Your task to perform on an android device: see sites visited before in the chrome app Image 0: 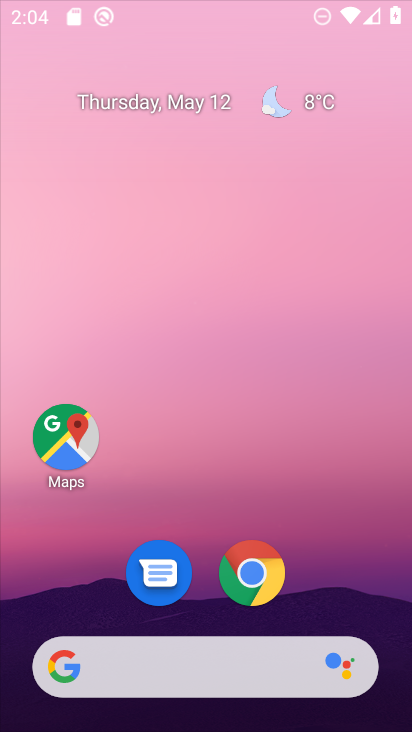
Step 0: drag from (338, 604) to (171, 104)
Your task to perform on an android device: see sites visited before in the chrome app Image 1: 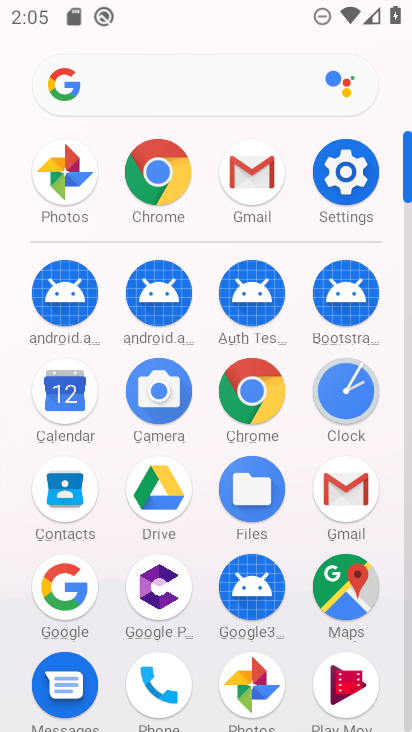
Step 1: click (175, 173)
Your task to perform on an android device: see sites visited before in the chrome app Image 2: 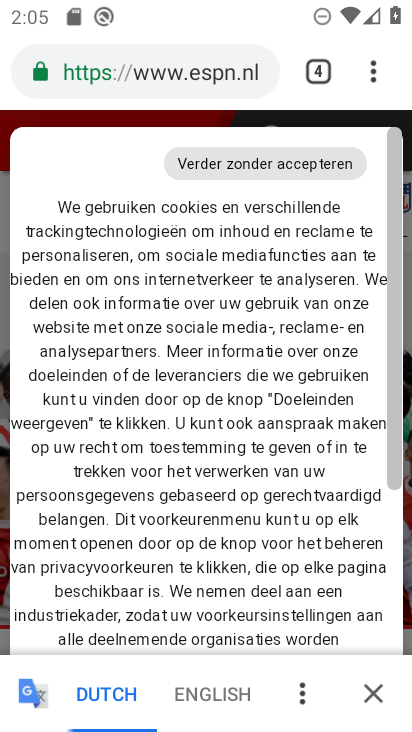
Step 2: click (370, 62)
Your task to perform on an android device: see sites visited before in the chrome app Image 3: 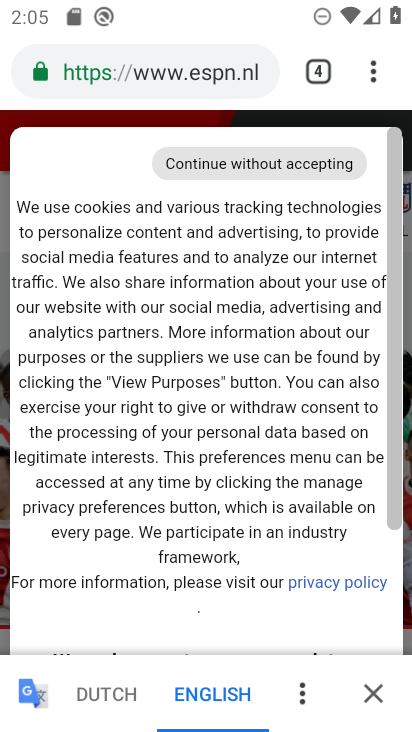
Step 3: press back button
Your task to perform on an android device: see sites visited before in the chrome app Image 4: 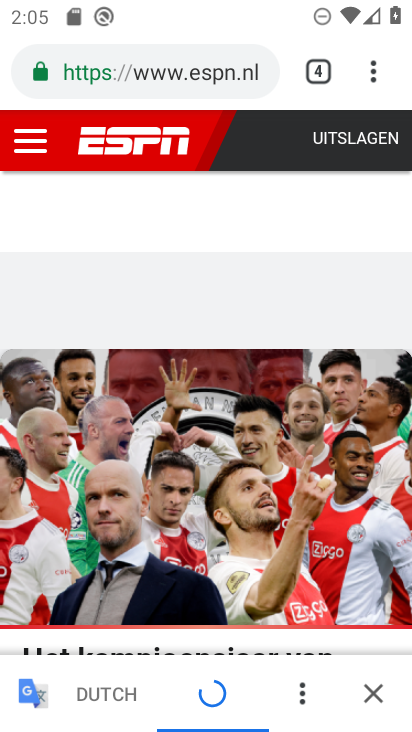
Step 4: press home button
Your task to perform on an android device: see sites visited before in the chrome app Image 5: 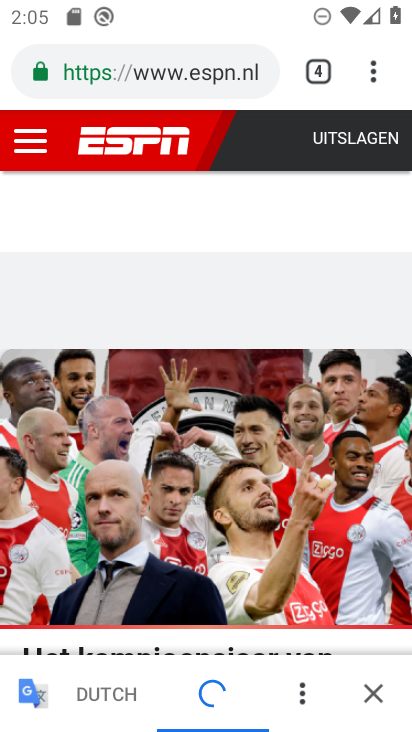
Step 5: press home button
Your task to perform on an android device: see sites visited before in the chrome app Image 6: 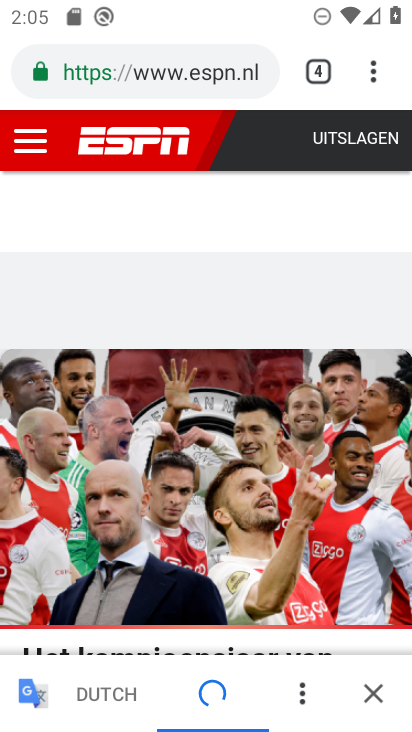
Step 6: drag from (222, 176) to (197, 32)
Your task to perform on an android device: see sites visited before in the chrome app Image 7: 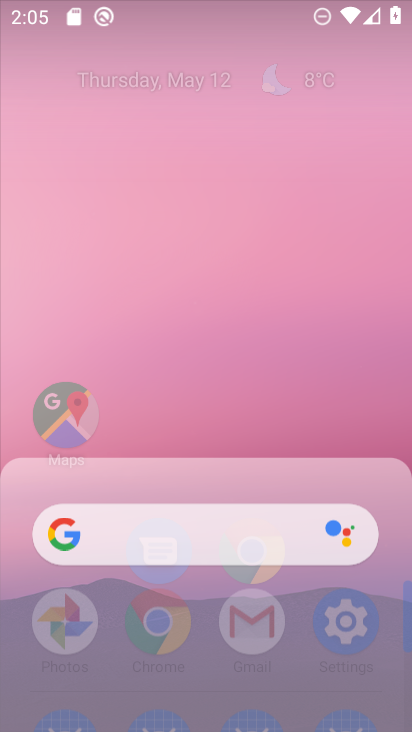
Step 7: drag from (216, 460) to (147, 113)
Your task to perform on an android device: see sites visited before in the chrome app Image 8: 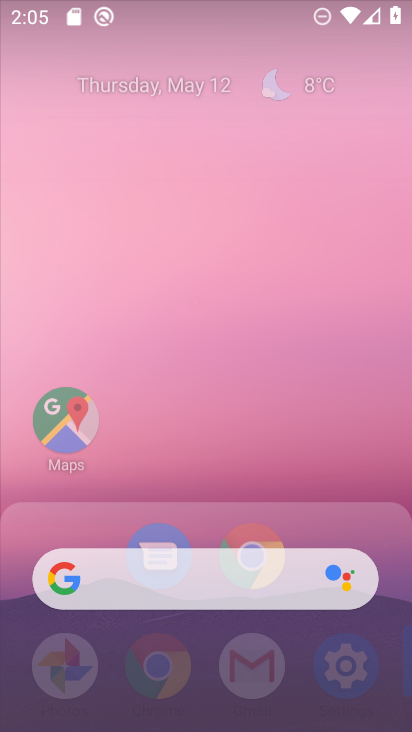
Step 8: drag from (158, 321) to (150, 189)
Your task to perform on an android device: see sites visited before in the chrome app Image 9: 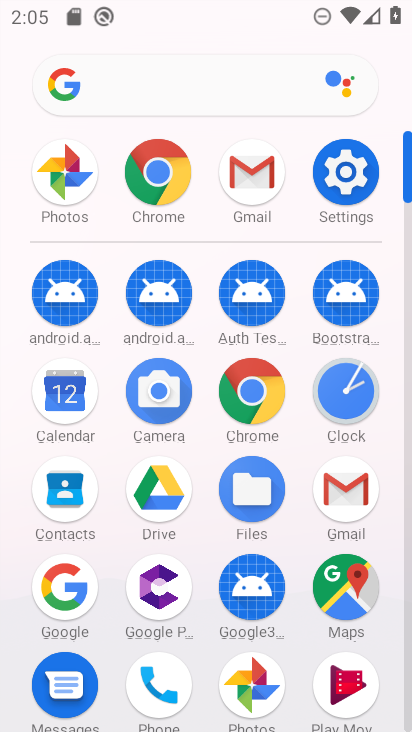
Step 9: click (155, 175)
Your task to perform on an android device: see sites visited before in the chrome app Image 10: 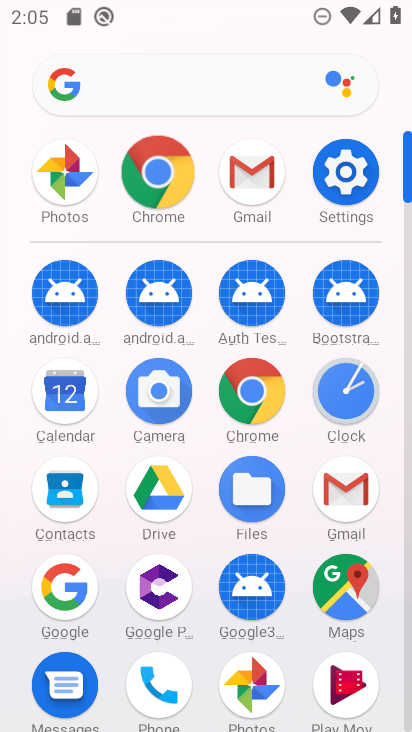
Step 10: click (155, 175)
Your task to perform on an android device: see sites visited before in the chrome app Image 11: 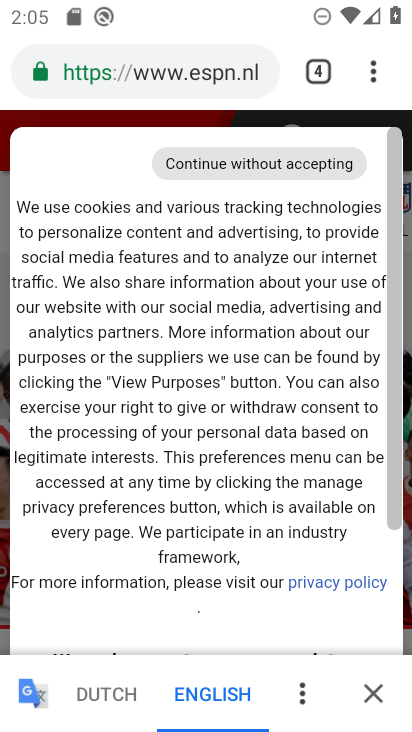
Step 11: drag from (367, 66) to (112, 147)
Your task to perform on an android device: see sites visited before in the chrome app Image 12: 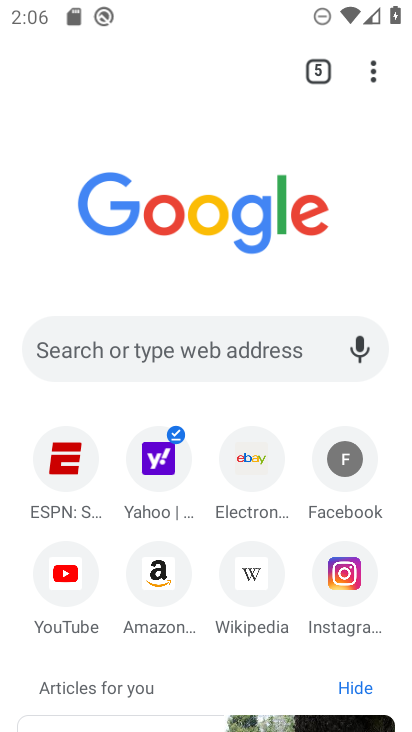
Step 12: drag from (362, 71) to (112, 334)
Your task to perform on an android device: see sites visited before in the chrome app Image 13: 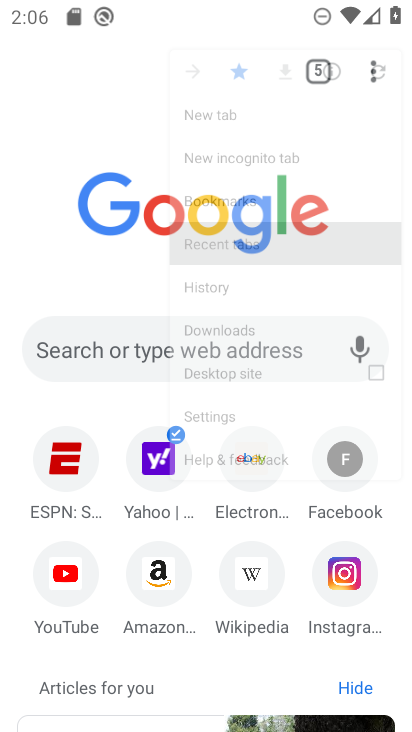
Step 13: click (105, 333)
Your task to perform on an android device: see sites visited before in the chrome app Image 14: 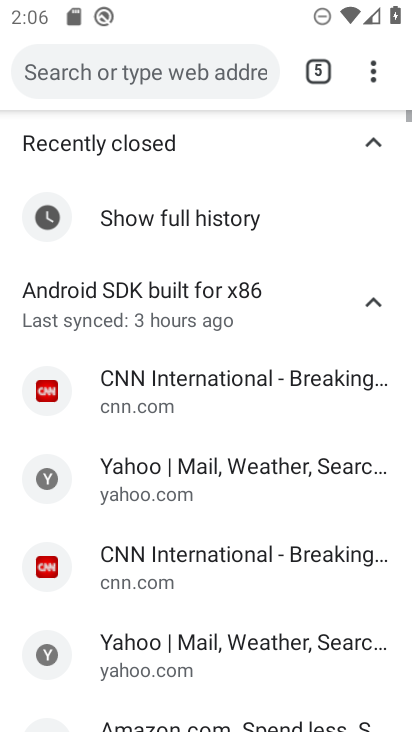
Step 14: click (104, 331)
Your task to perform on an android device: see sites visited before in the chrome app Image 15: 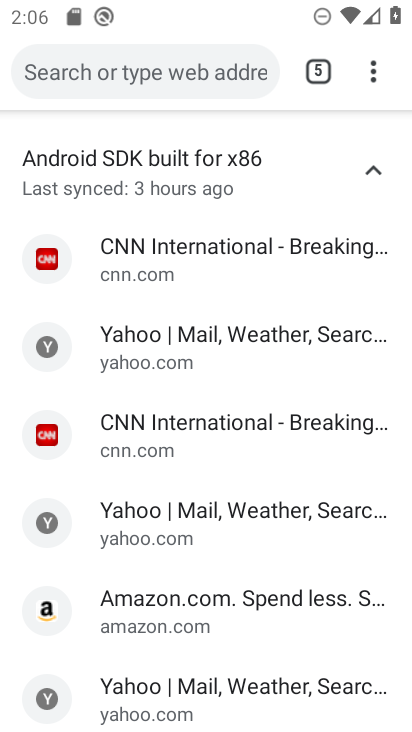
Step 15: task complete